Your task to perform on an android device: Open my contact list Image 0: 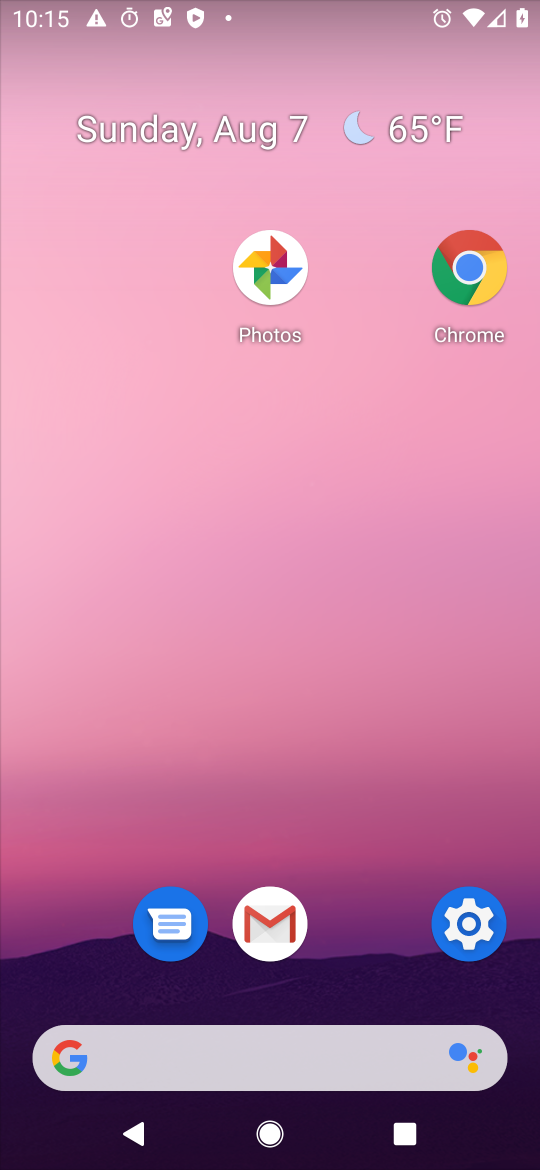
Step 0: drag from (376, 1090) to (324, 275)
Your task to perform on an android device: Open my contact list Image 1: 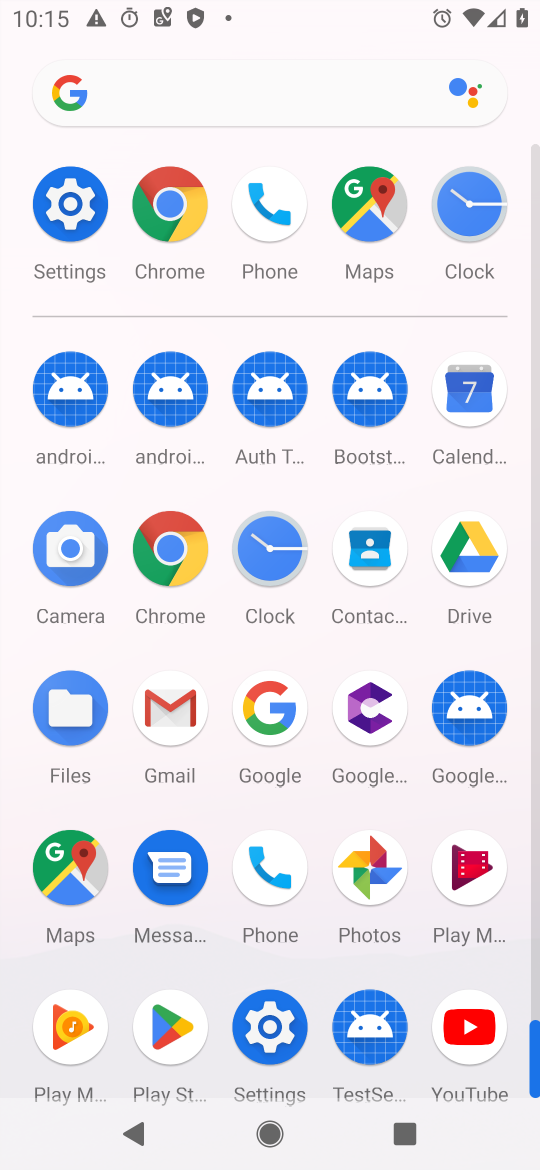
Step 1: click (262, 222)
Your task to perform on an android device: Open my contact list Image 2: 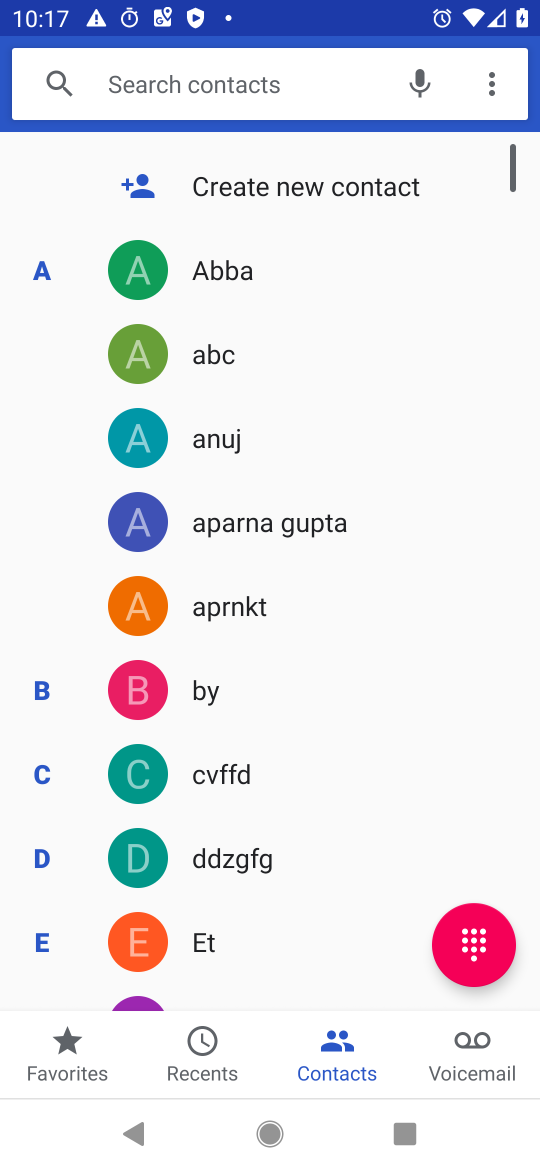
Step 2: task complete